Your task to perform on an android device: toggle airplane mode Image 0: 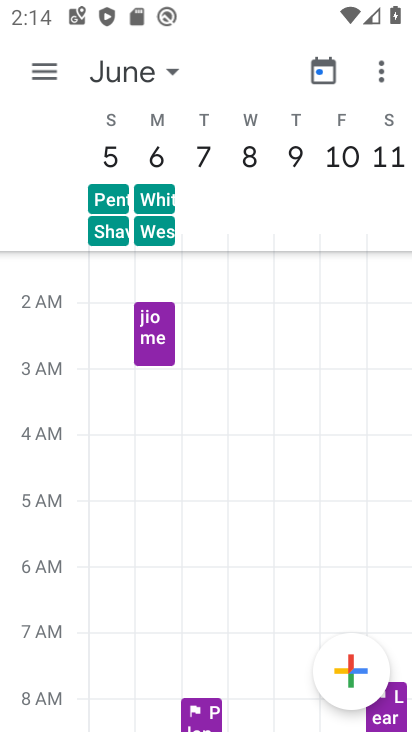
Step 0: press home button
Your task to perform on an android device: toggle airplane mode Image 1: 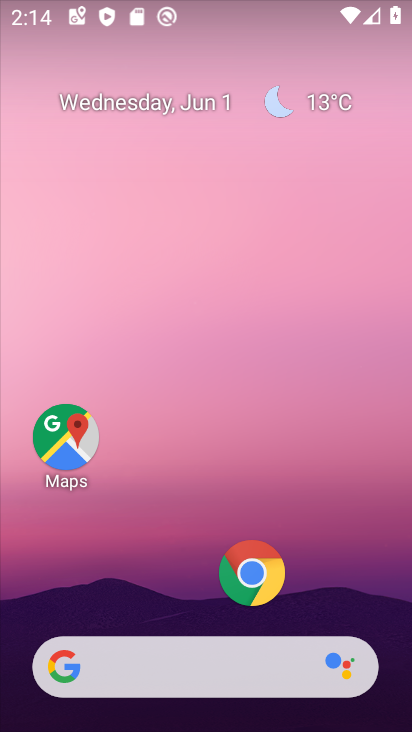
Step 1: drag from (214, 624) to (164, 68)
Your task to perform on an android device: toggle airplane mode Image 2: 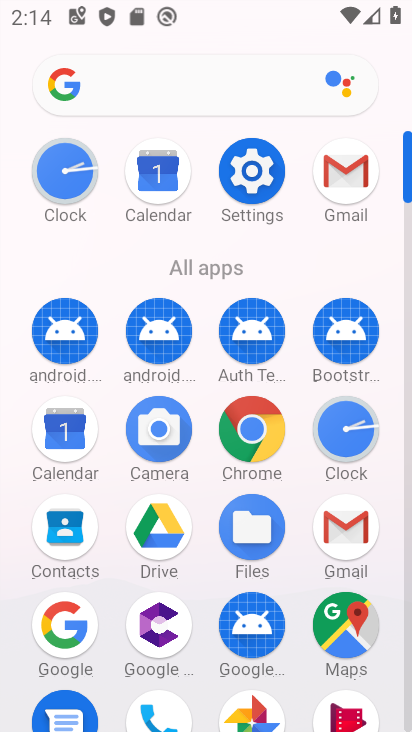
Step 2: click (244, 175)
Your task to perform on an android device: toggle airplane mode Image 3: 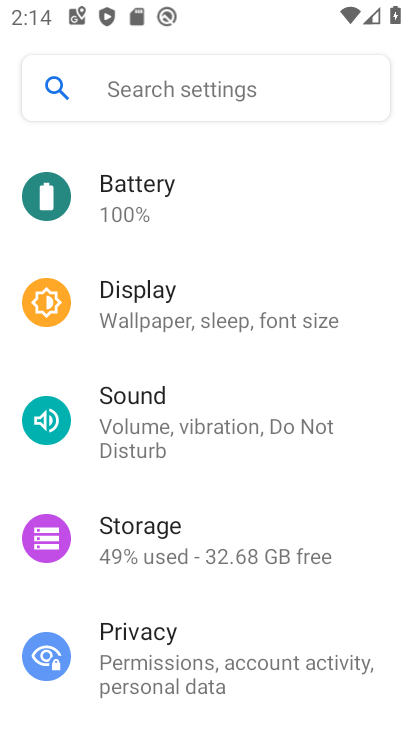
Step 3: drag from (240, 172) to (187, 716)
Your task to perform on an android device: toggle airplane mode Image 4: 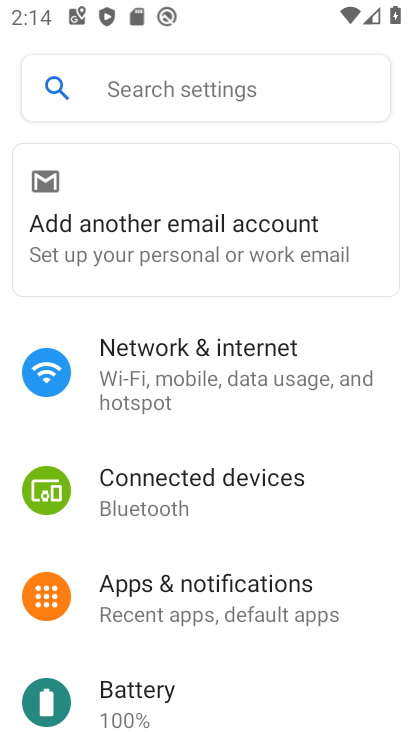
Step 4: click (211, 369)
Your task to perform on an android device: toggle airplane mode Image 5: 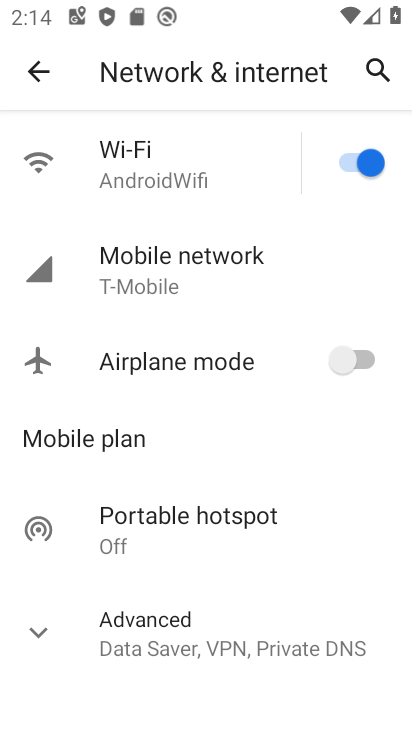
Step 5: click (225, 377)
Your task to perform on an android device: toggle airplane mode Image 6: 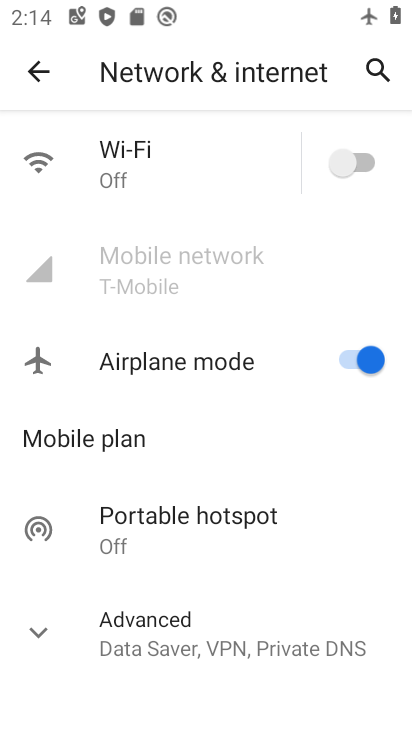
Step 6: task complete